Your task to perform on an android device: turn on translation in the chrome app Image 0: 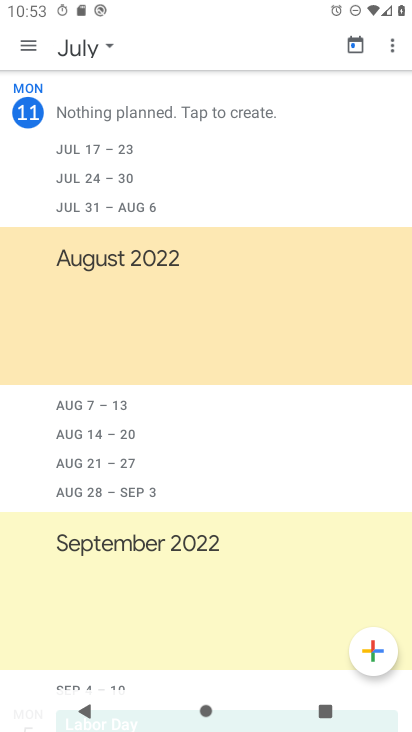
Step 0: press back button
Your task to perform on an android device: turn on translation in the chrome app Image 1: 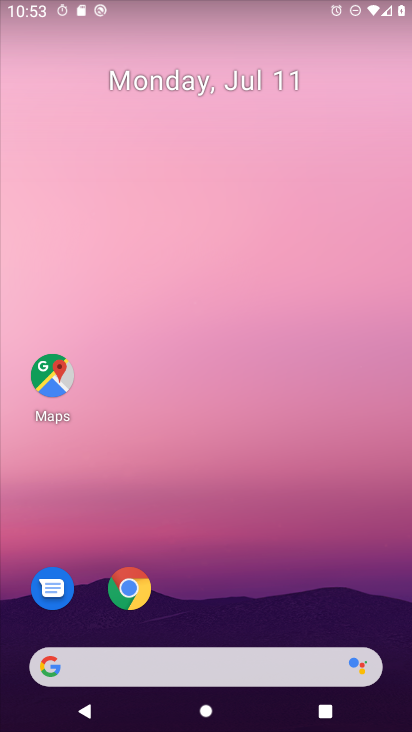
Step 1: click (142, 584)
Your task to perform on an android device: turn on translation in the chrome app Image 2: 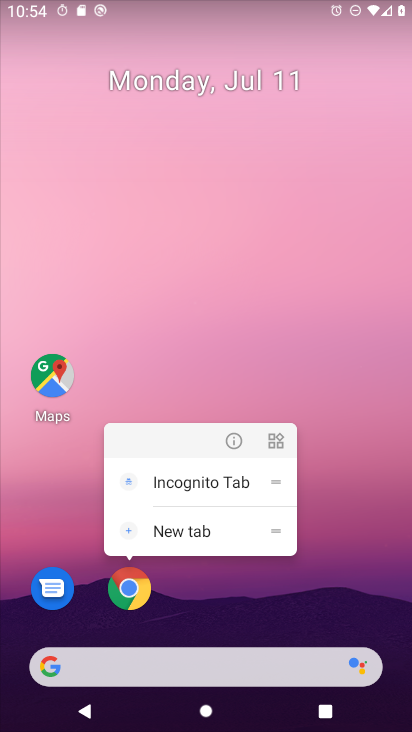
Step 2: click (120, 603)
Your task to perform on an android device: turn on translation in the chrome app Image 3: 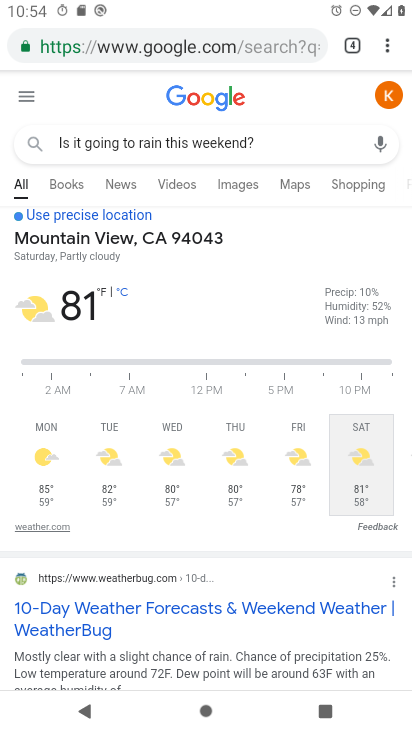
Step 3: drag from (390, 42) to (230, 508)
Your task to perform on an android device: turn on translation in the chrome app Image 4: 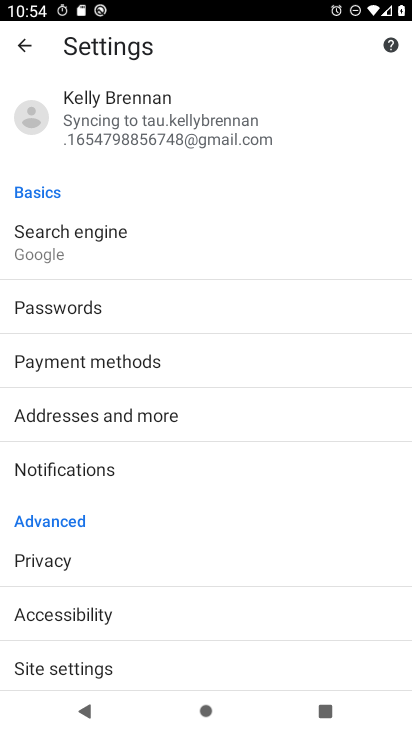
Step 4: click (104, 658)
Your task to perform on an android device: turn on translation in the chrome app Image 5: 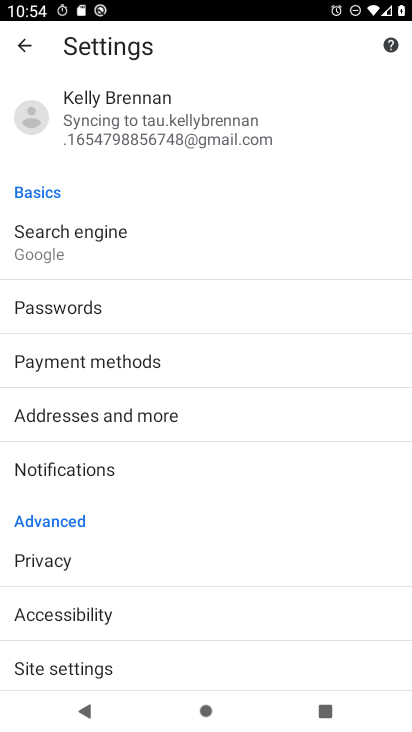
Step 5: drag from (127, 646) to (243, 184)
Your task to perform on an android device: turn on translation in the chrome app Image 6: 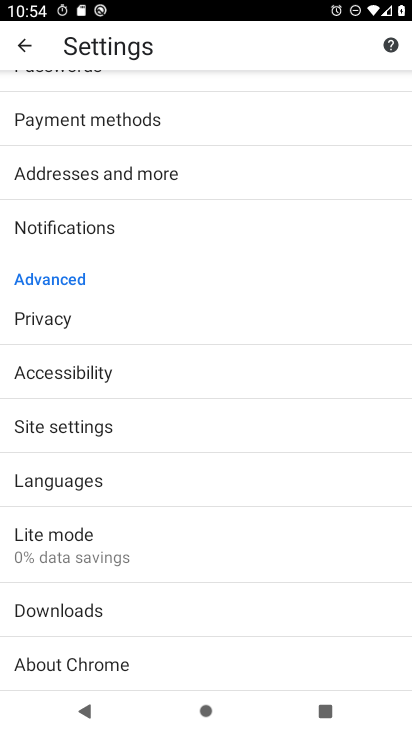
Step 6: click (80, 501)
Your task to perform on an android device: turn on translation in the chrome app Image 7: 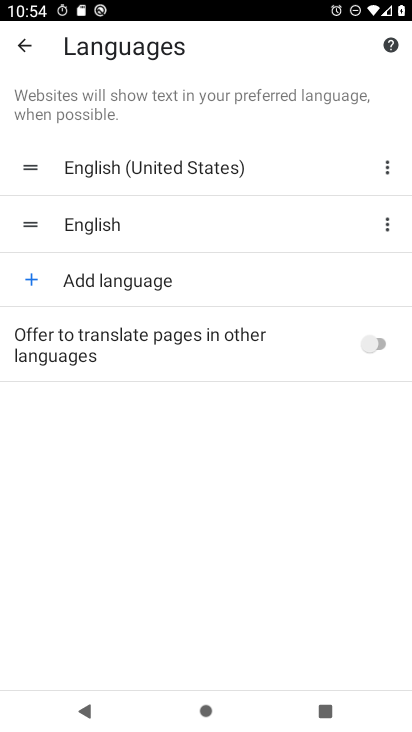
Step 7: click (374, 333)
Your task to perform on an android device: turn on translation in the chrome app Image 8: 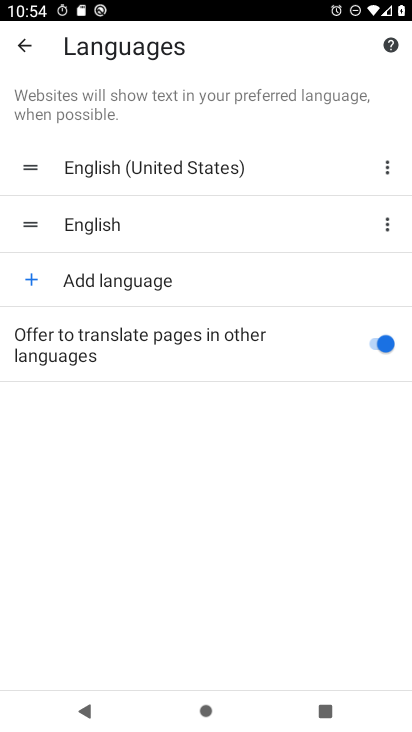
Step 8: task complete